Your task to perform on an android device: Open Amazon Image 0: 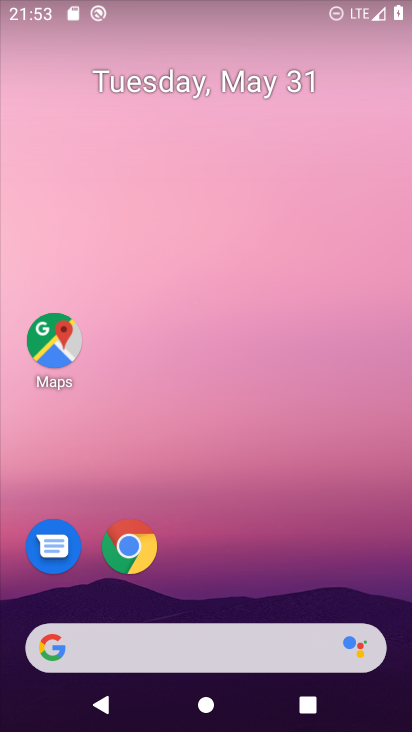
Step 0: drag from (400, 697) to (366, 168)
Your task to perform on an android device: Open Amazon Image 1: 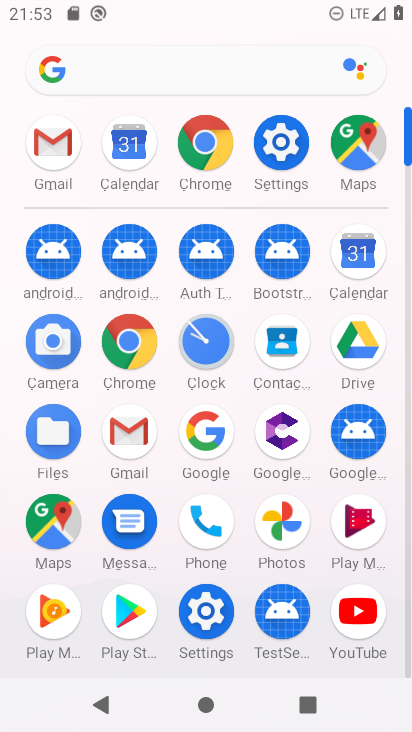
Step 1: click (193, 145)
Your task to perform on an android device: Open Amazon Image 2: 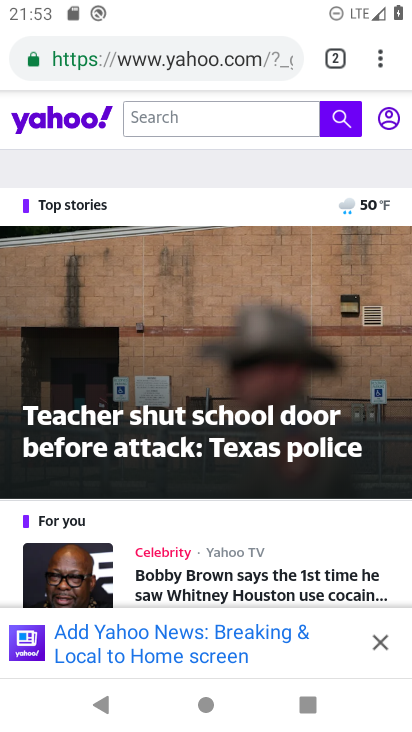
Step 2: click (284, 57)
Your task to perform on an android device: Open Amazon Image 3: 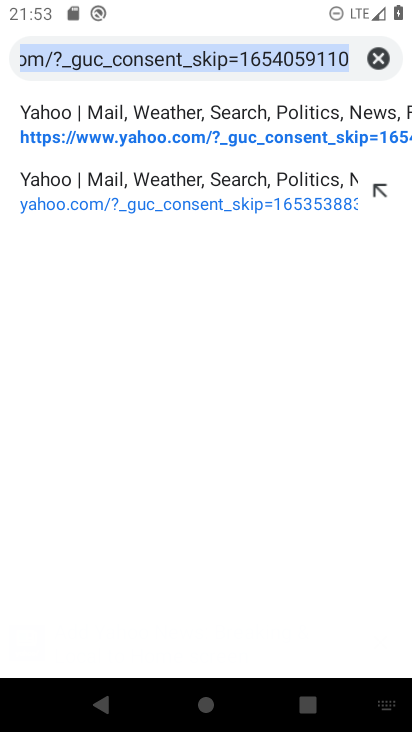
Step 3: click (369, 54)
Your task to perform on an android device: Open Amazon Image 4: 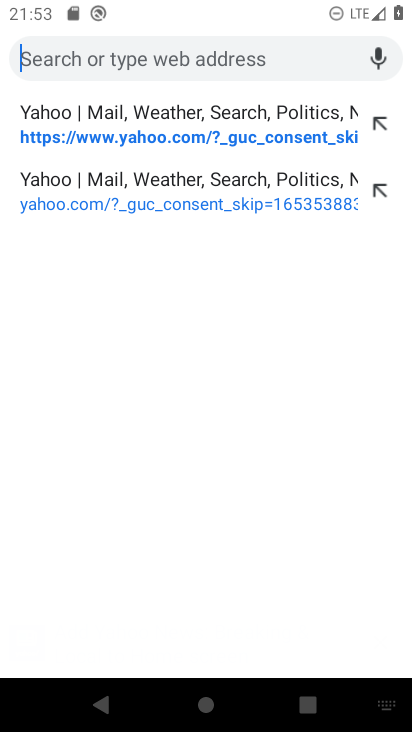
Step 4: type "Amazon"
Your task to perform on an android device: Open Amazon Image 5: 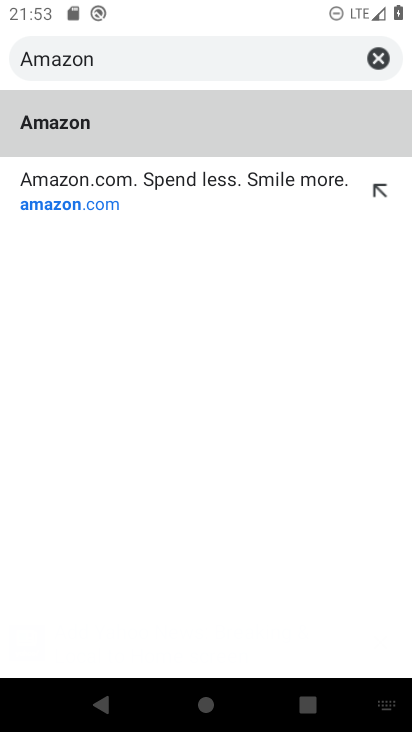
Step 5: click (139, 123)
Your task to perform on an android device: Open Amazon Image 6: 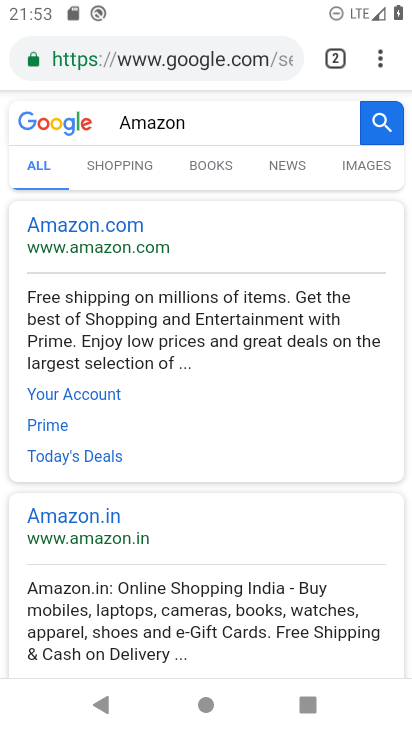
Step 6: task complete